Your task to perform on an android device: Open eBay Image 0: 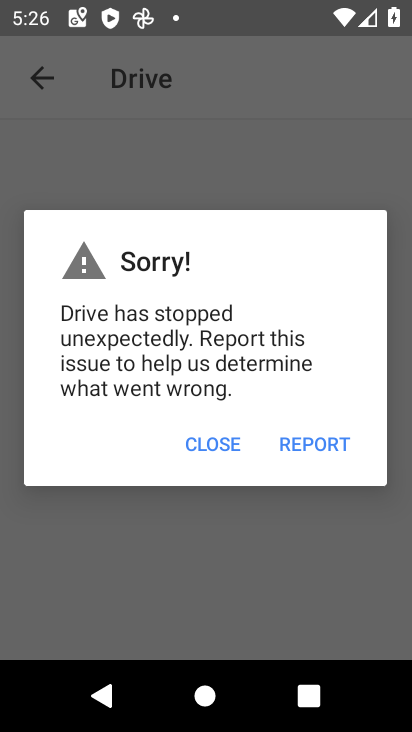
Step 0: press home button
Your task to perform on an android device: Open eBay Image 1: 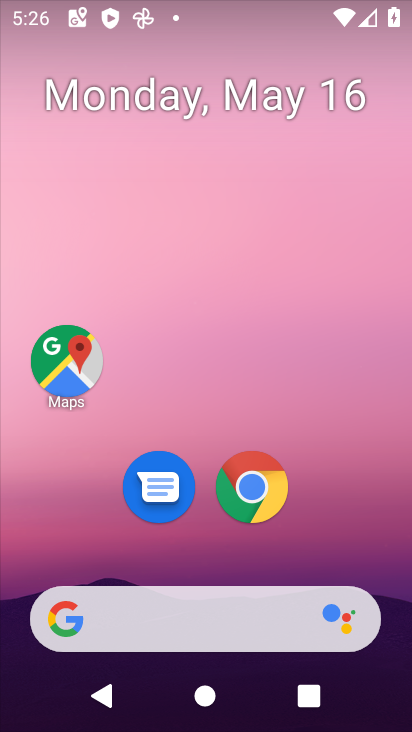
Step 1: click (253, 478)
Your task to perform on an android device: Open eBay Image 2: 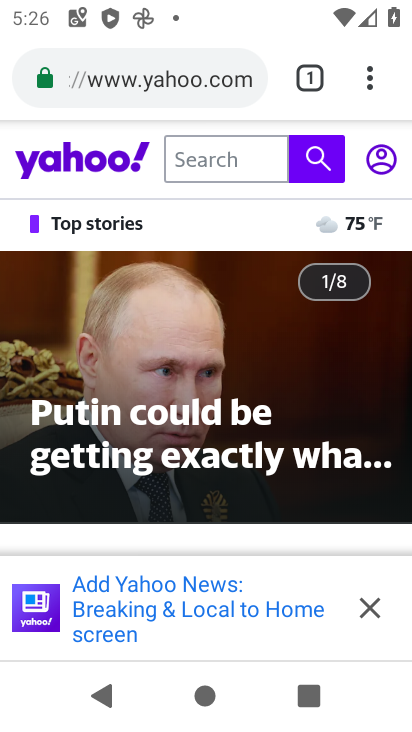
Step 2: click (164, 63)
Your task to perform on an android device: Open eBay Image 3: 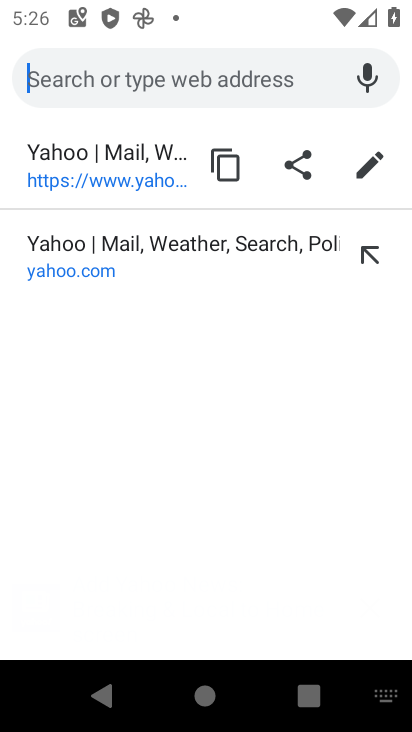
Step 3: type "ebay"
Your task to perform on an android device: Open eBay Image 4: 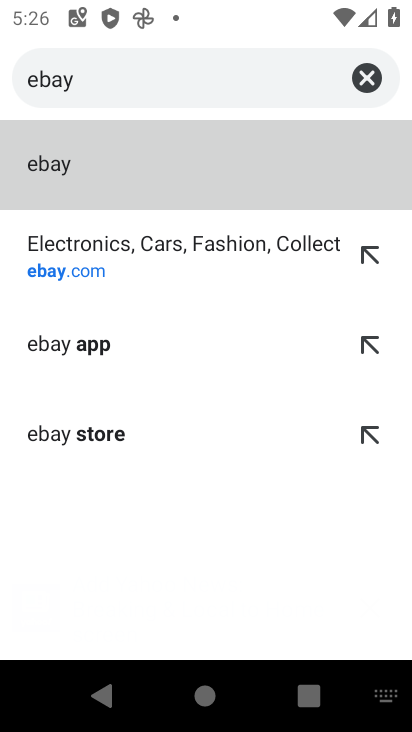
Step 4: click (75, 245)
Your task to perform on an android device: Open eBay Image 5: 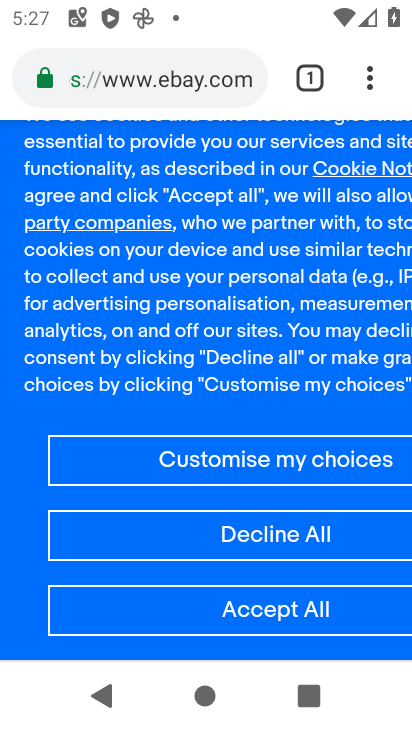
Step 5: task complete